Your task to perform on an android device: Go to Yahoo.com Image 0: 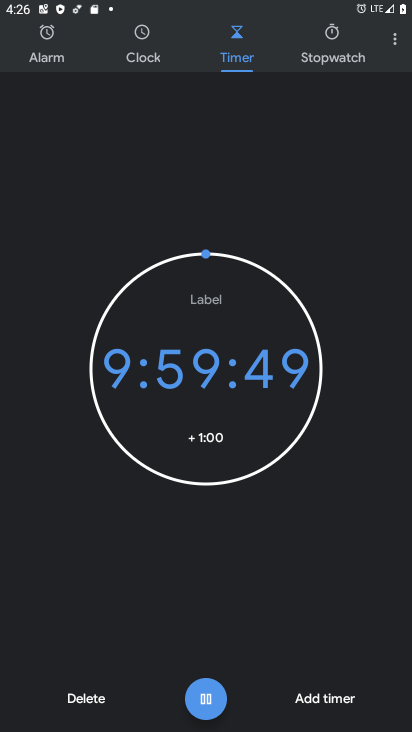
Step 0: press home button
Your task to perform on an android device: Go to Yahoo.com Image 1: 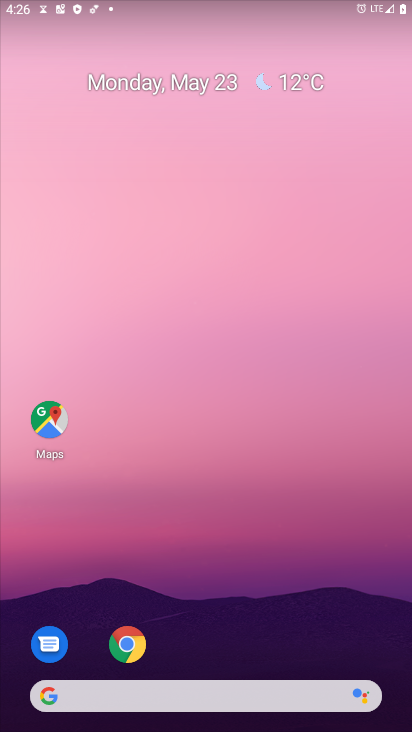
Step 1: click (142, 645)
Your task to perform on an android device: Go to Yahoo.com Image 2: 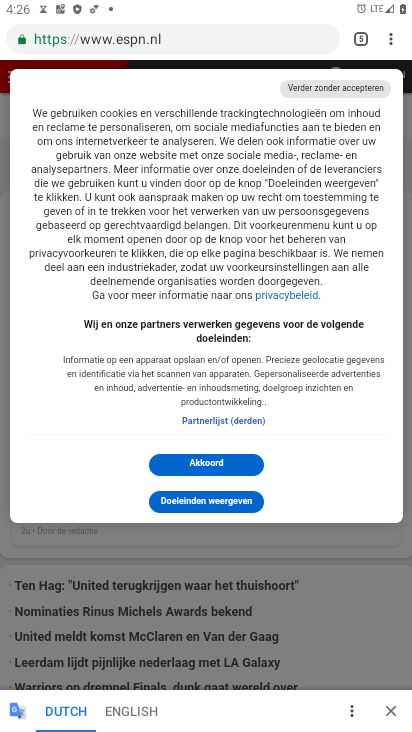
Step 2: click (187, 37)
Your task to perform on an android device: Go to Yahoo.com Image 3: 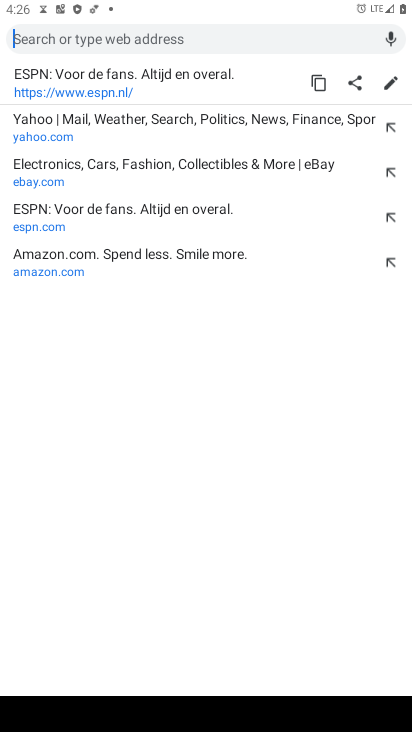
Step 3: type "yahoo.c"
Your task to perform on an android device: Go to Yahoo.com Image 4: 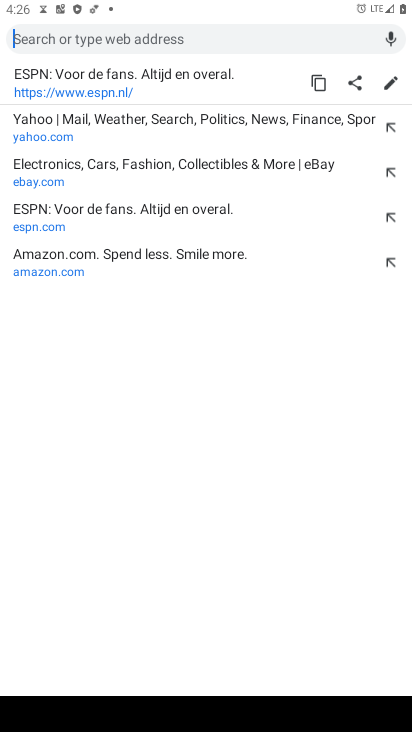
Step 4: click (56, 138)
Your task to perform on an android device: Go to Yahoo.com Image 5: 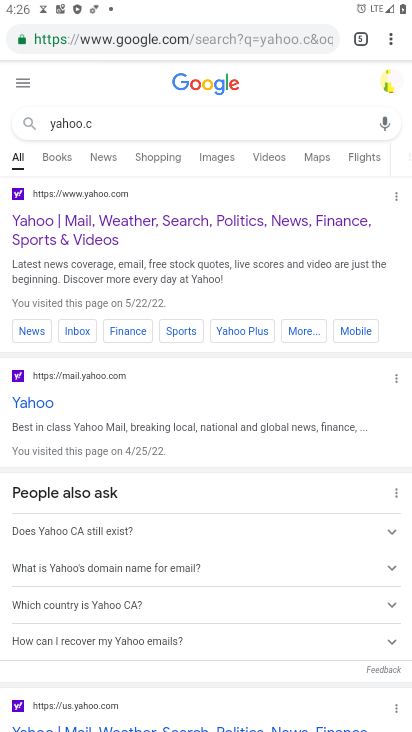
Step 5: click (81, 226)
Your task to perform on an android device: Go to Yahoo.com Image 6: 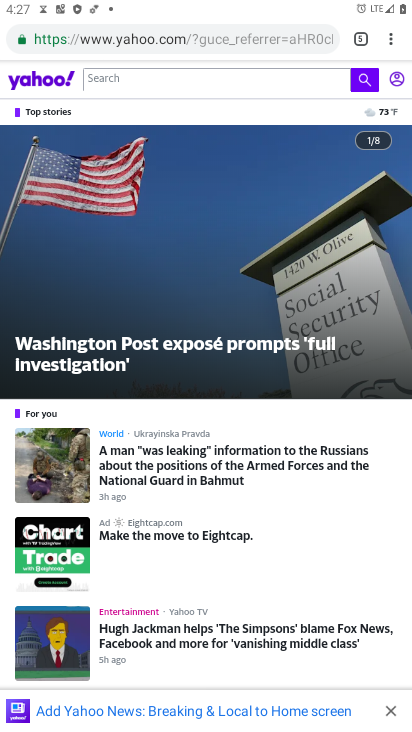
Step 6: task complete